Your task to perform on an android device: Open the web browser Image 0: 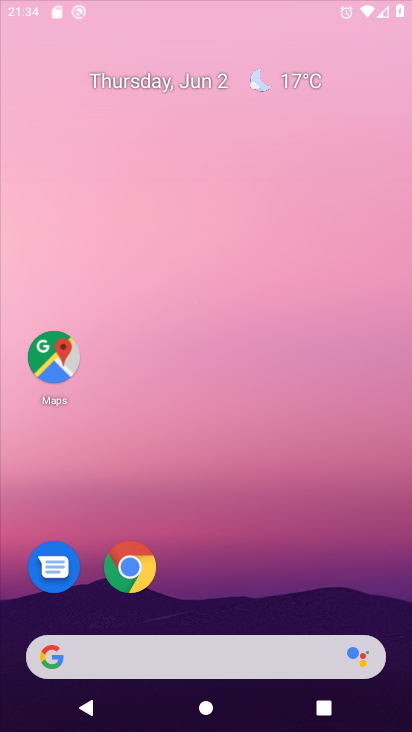
Step 0: click (404, 260)
Your task to perform on an android device: Open the web browser Image 1: 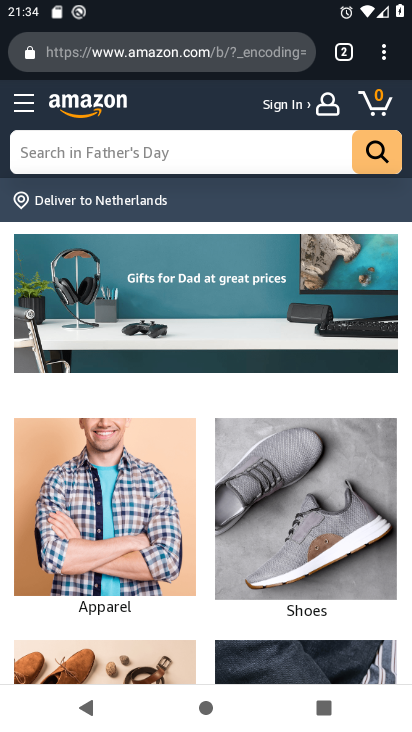
Step 1: press home button
Your task to perform on an android device: Open the web browser Image 2: 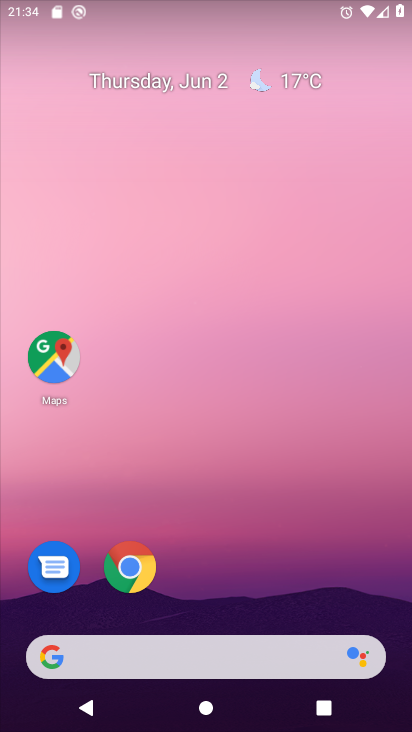
Step 2: click (136, 562)
Your task to perform on an android device: Open the web browser Image 3: 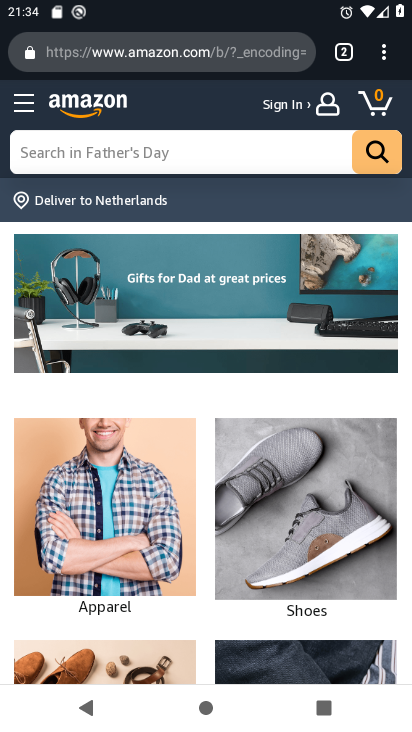
Step 3: task complete